Your task to perform on an android device: Do I have any events this weekend? Image 0: 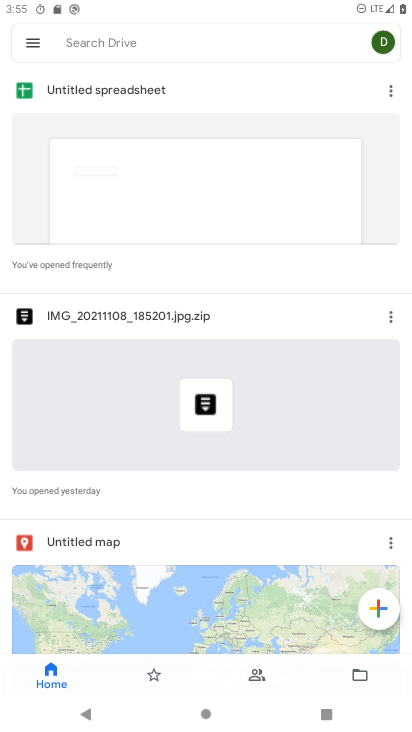
Step 0: press home button
Your task to perform on an android device: Do I have any events this weekend? Image 1: 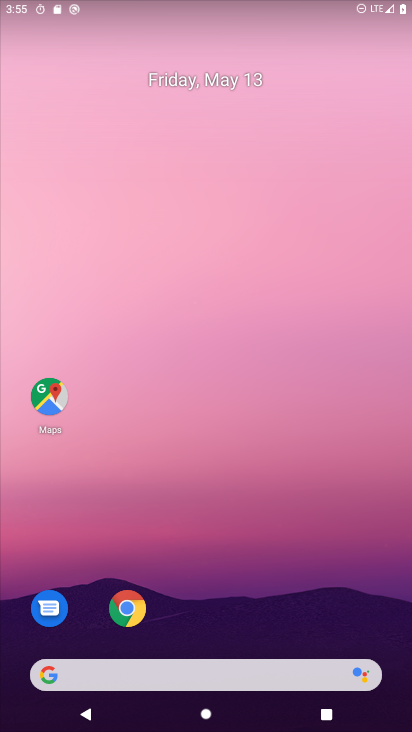
Step 1: drag from (290, 586) to (231, 75)
Your task to perform on an android device: Do I have any events this weekend? Image 2: 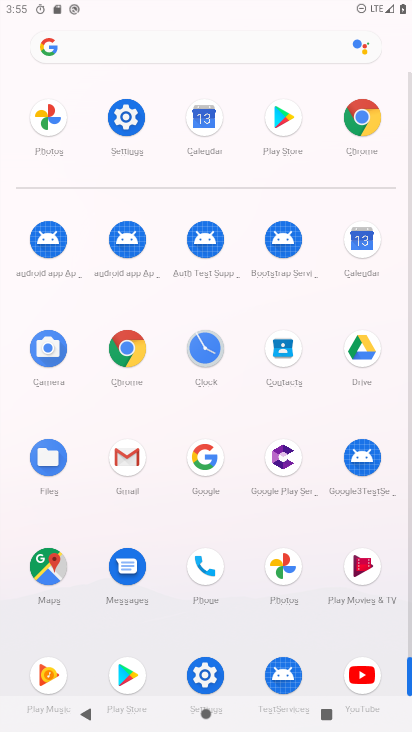
Step 2: click (358, 246)
Your task to perform on an android device: Do I have any events this weekend? Image 3: 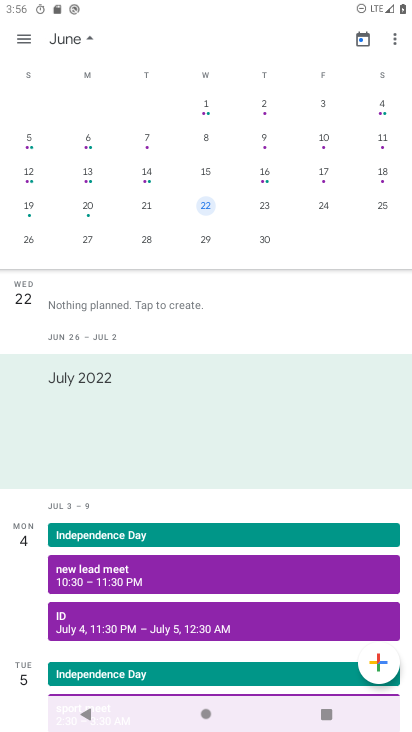
Step 3: drag from (23, 121) to (388, 132)
Your task to perform on an android device: Do I have any events this weekend? Image 4: 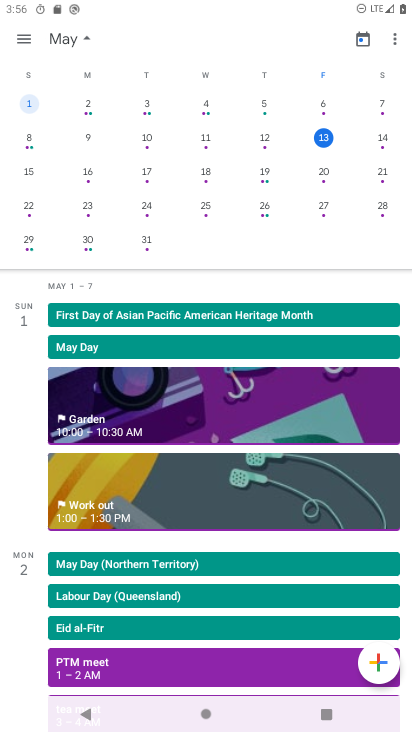
Step 4: click (325, 136)
Your task to perform on an android device: Do I have any events this weekend? Image 5: 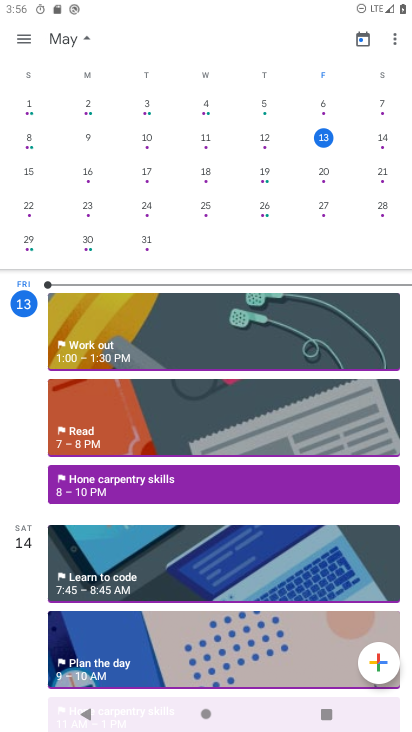
Step 5: task complete